Your task to perform on an android device: find snoozed emails in the gmail app Image 0: 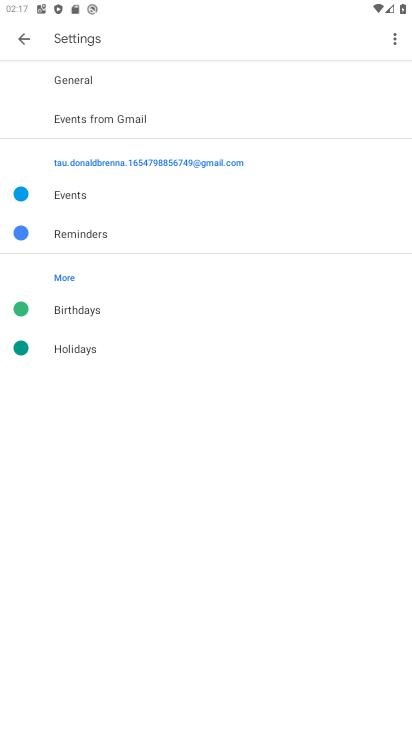
Step 0: press home button
Your task to perform on an android device: find snoozed emails in the gmail app Image 1: 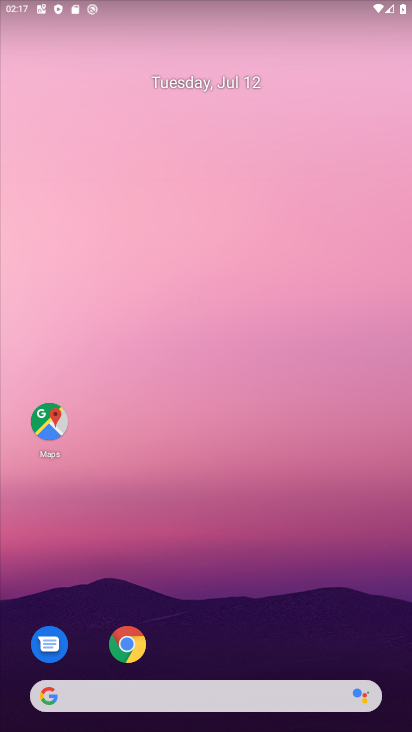
Step 1: drag from (189, 654) to (123, 72)
Your task to perform on an android device: find snoozed emails in the gmail app Image 2: 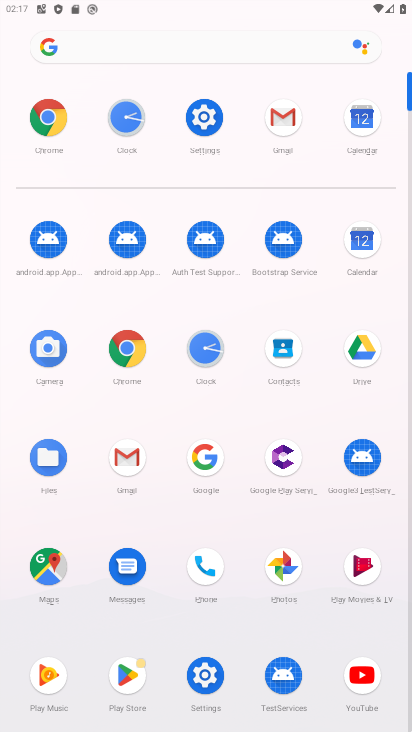
Step 2: click (119, 448)
Your task to perform on an android device: find snoozed emails in the gmail app Image 3: 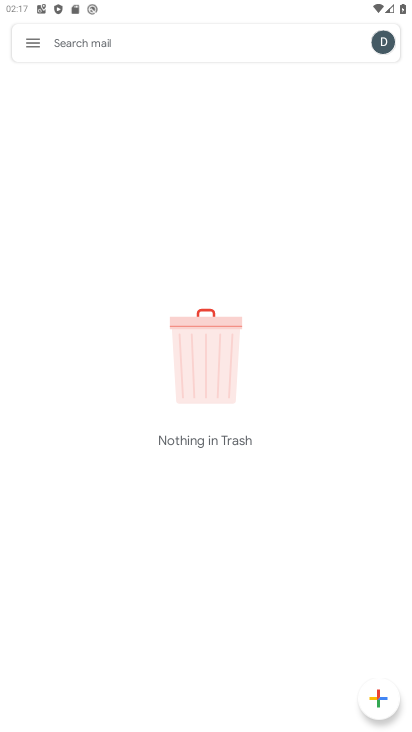
Step 3: click (33, 46)
Your task to perform on an android device: find snoozed emails in the gmail app Image 4: 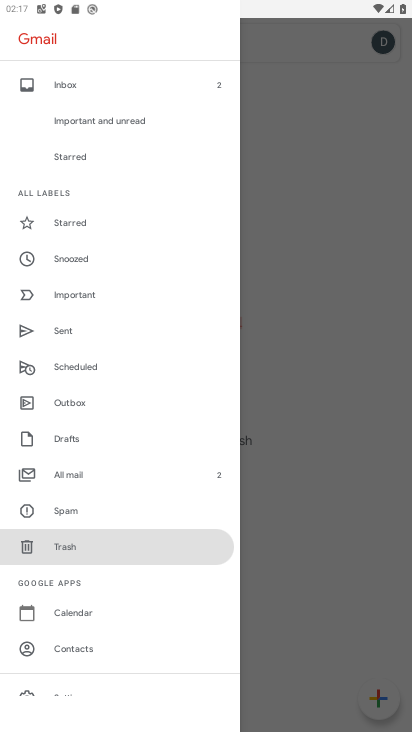
Step 4: click (88, 261)
Your task to perform on an android device: find snoozed emails in the gmail app Image 5: 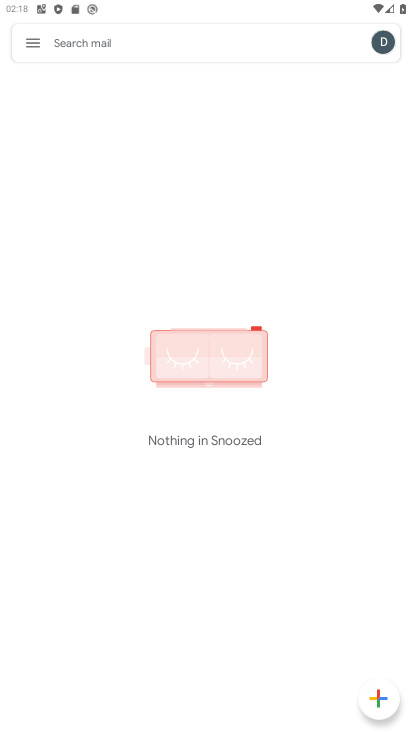
Step 5: task complete